Your task to perform on an android device: open wifi settings Image 0: 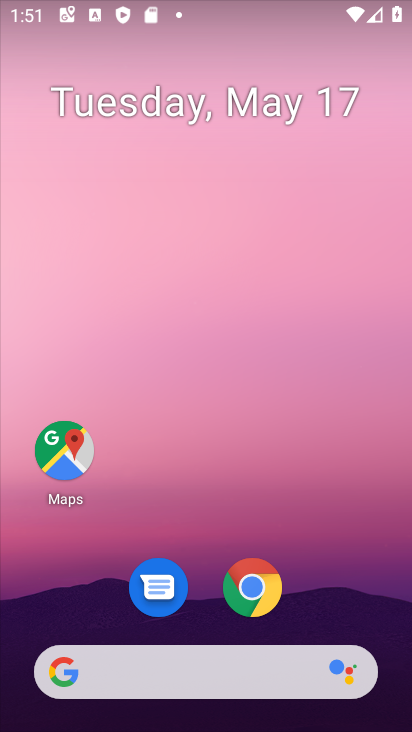
Step 0: drag from (199, 624) to (245, 95)
Your task to perform on an android device: open wifi settings Image 1: 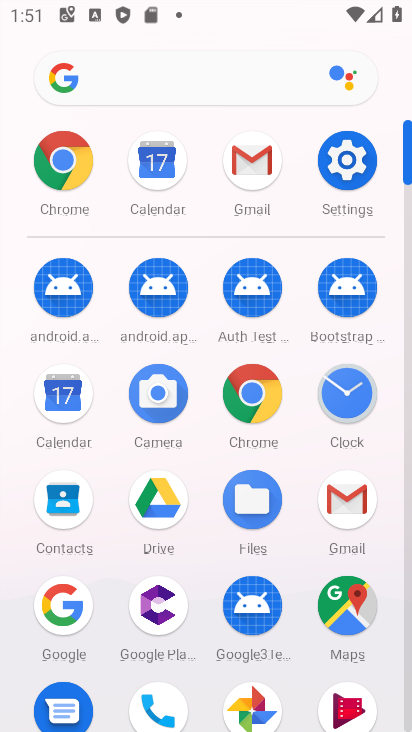
Step 1: click (358, 163)
Your task to perform on an android device: open wifi settings Image 2: 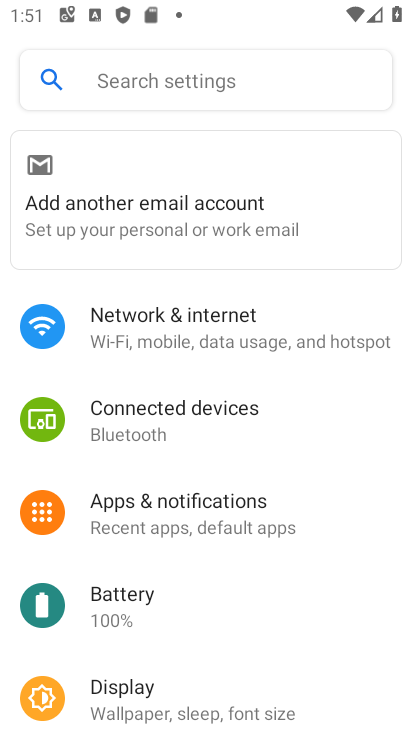
Step 2: click (187, 339)
Your task to perform on an android device: open wifi settings Image 3: 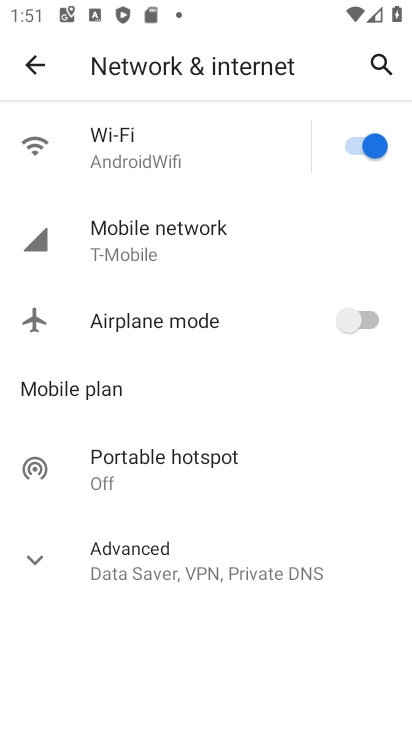
Step 3: click (218, 152)
Your task to perform on an android device: open wifi settings Image 4: 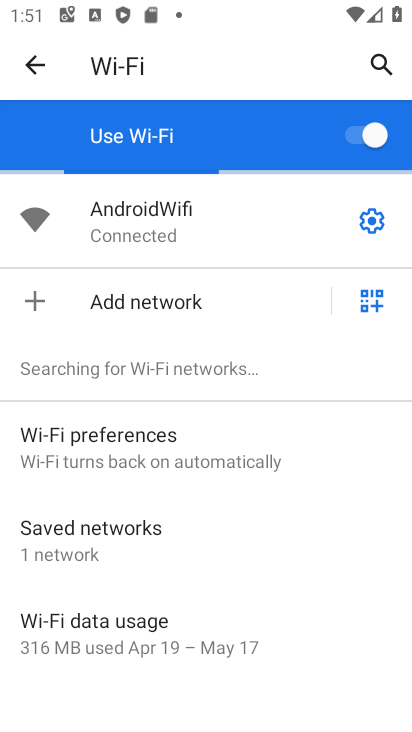
Step 4: click (377, 223)
Your task to perform on an android device: open wifi settings Image 5: 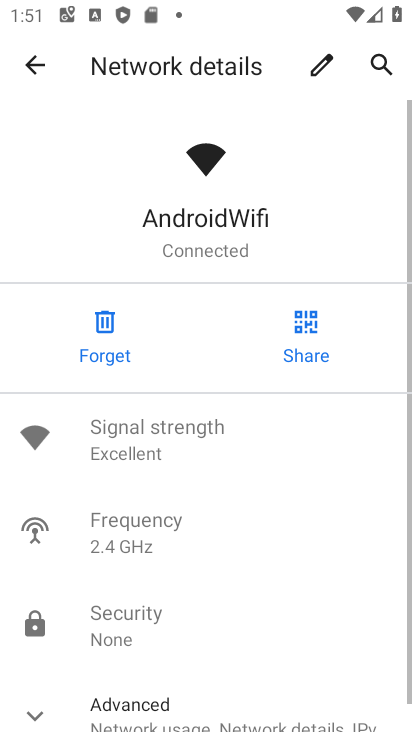
Step 5: task complete